Your task to perform on an android device: turn pop-ups off in chrome Image 0: 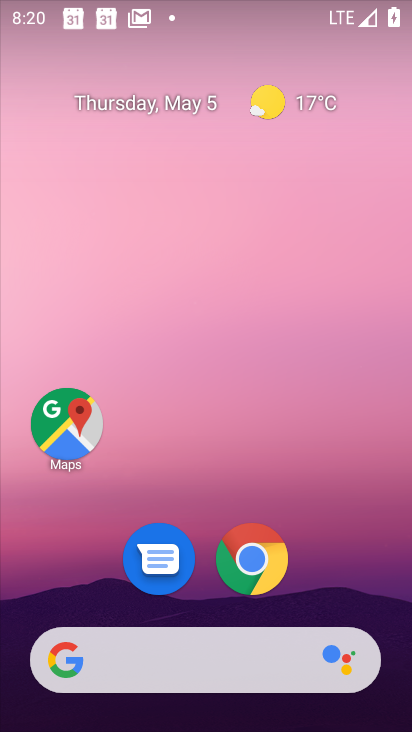
Step 0: click (251, 555)
Your task to perform on an android device: turn pop-ups off in chrome Image 1: 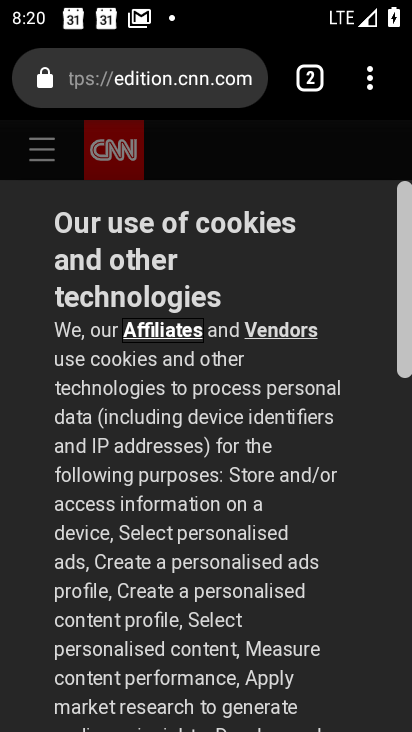
Step 1: drag from (368, 76) to (95, 613)
Your task to perform on an android device: turn pop-ups off in chrome Image 2: 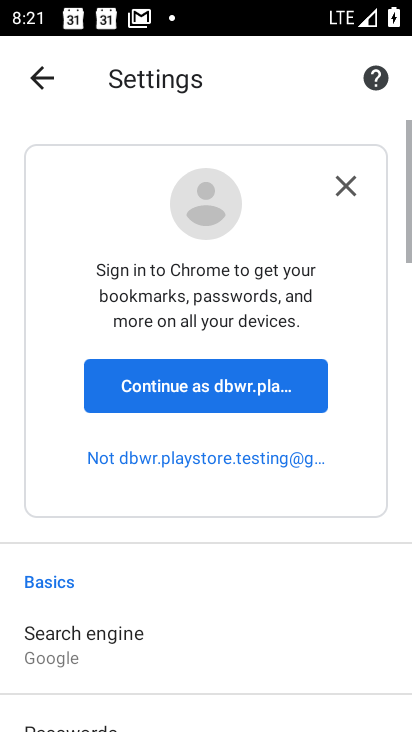
Step 2: drag from (219, 653) to (207, 306)
Your task to perform on an android device: turn pop-ups off in chrome Image 3: 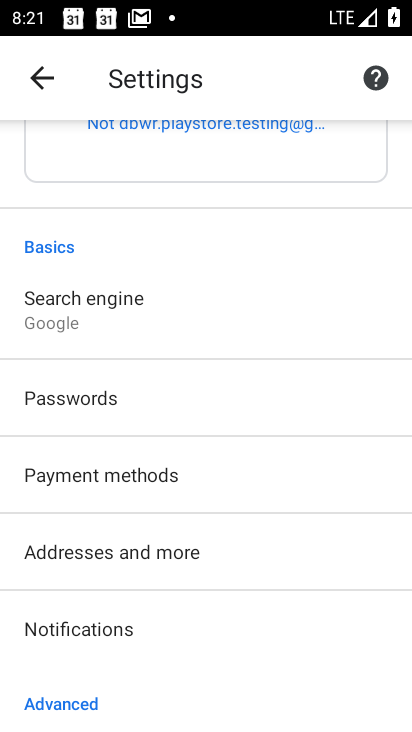
Step 3: drag from (243, 627) to (232, 278)
Your task to perform on an android device: turn pop-ups off in chrome Image 4: 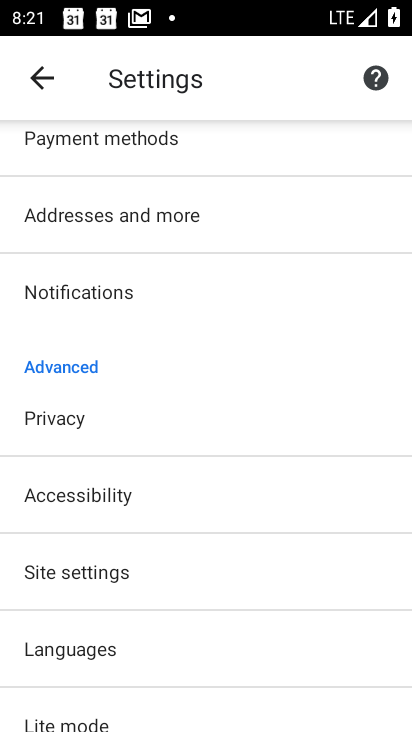
Step 4: click (84, 578)
Your task to perform on an android device: turn pop-ups off in chrome Image 5: 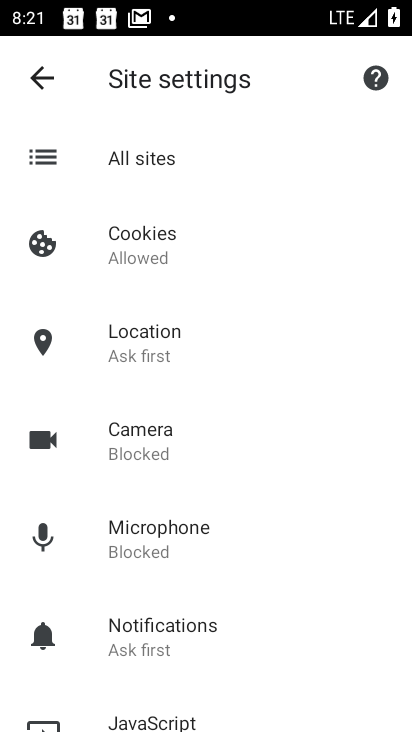
Step 5: drag from (291, 593) to (275, 316)
Your task to perform on an android device: turn pop-ups off in chrome Image 6: 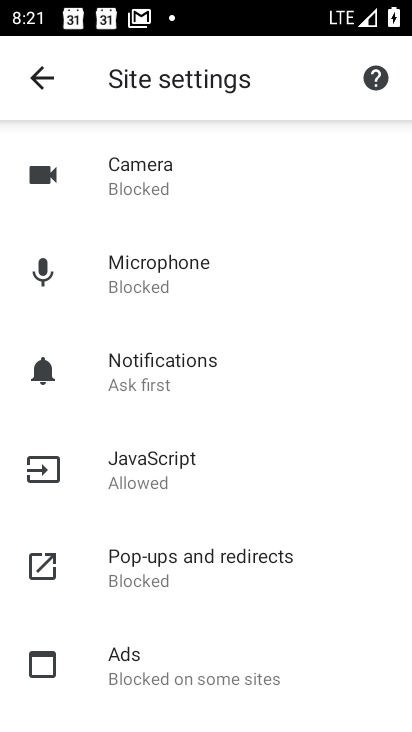
Step 6: click (129, 570)
Your task to perform on an android device: turn pop-ups off in chrome Image 7: 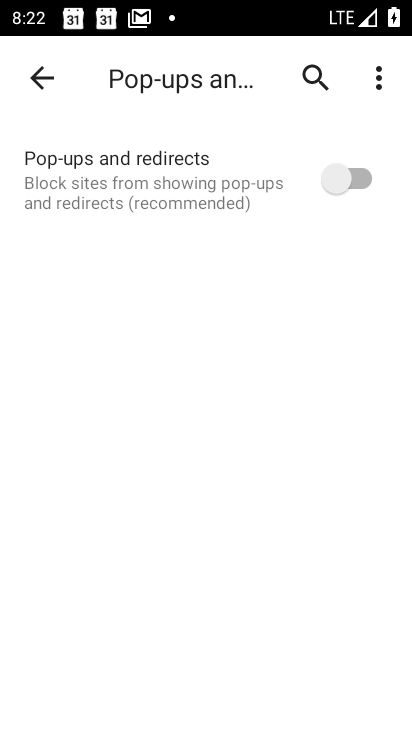
Step 7: task complete